Your task to perform on an android device: Go to CNN.com Image 0: 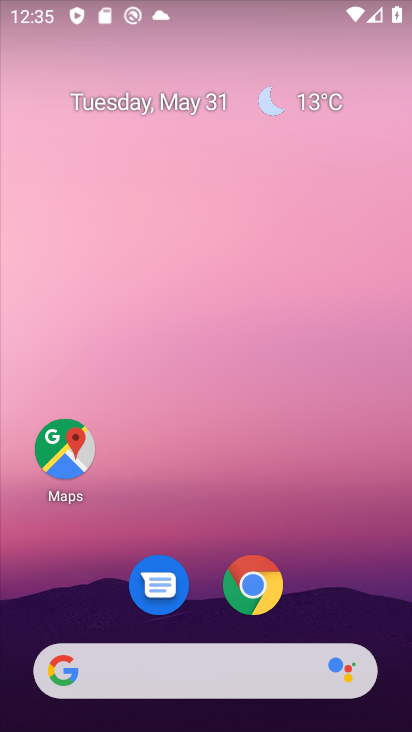
Step 0: click (232, 670)
Your task to perform on an android device: Go to CNN.com Image 1: 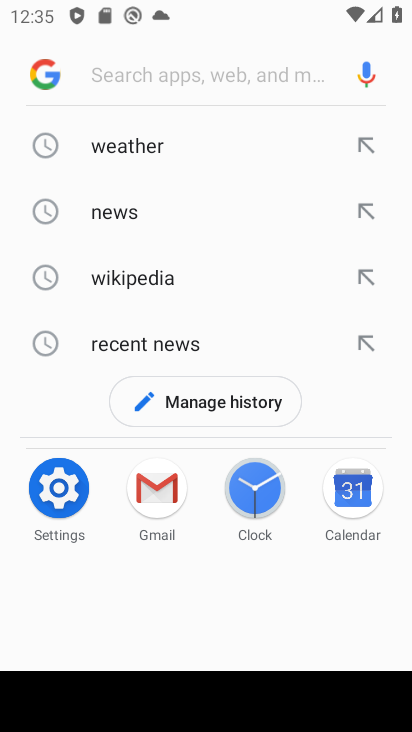
Step 1: type "cnn.com"
Your task to perform on an android device: Go to CNN.com Image 2: 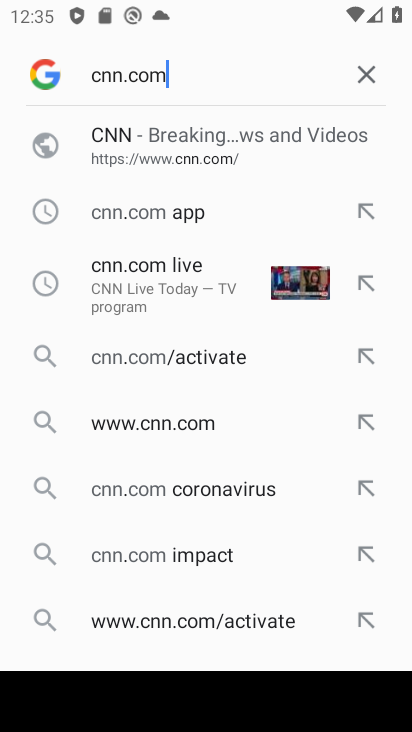
Step 2: click (142, 148)
Your task to perform on an android device: Go to CNN.com Image 3: 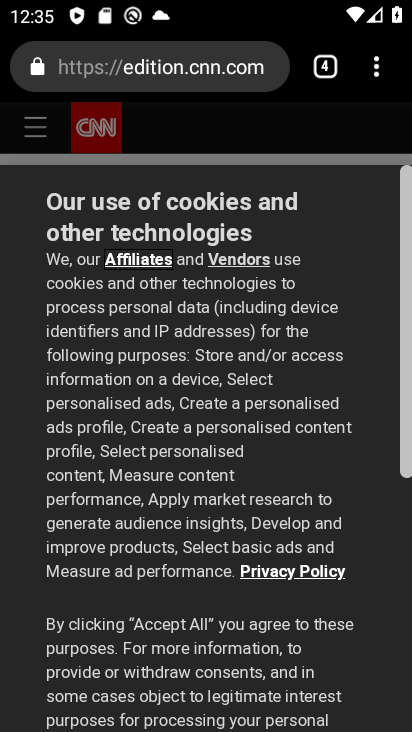
Step 3: task complete